Your task to perform on an android device: change text size in settings app Image 0: 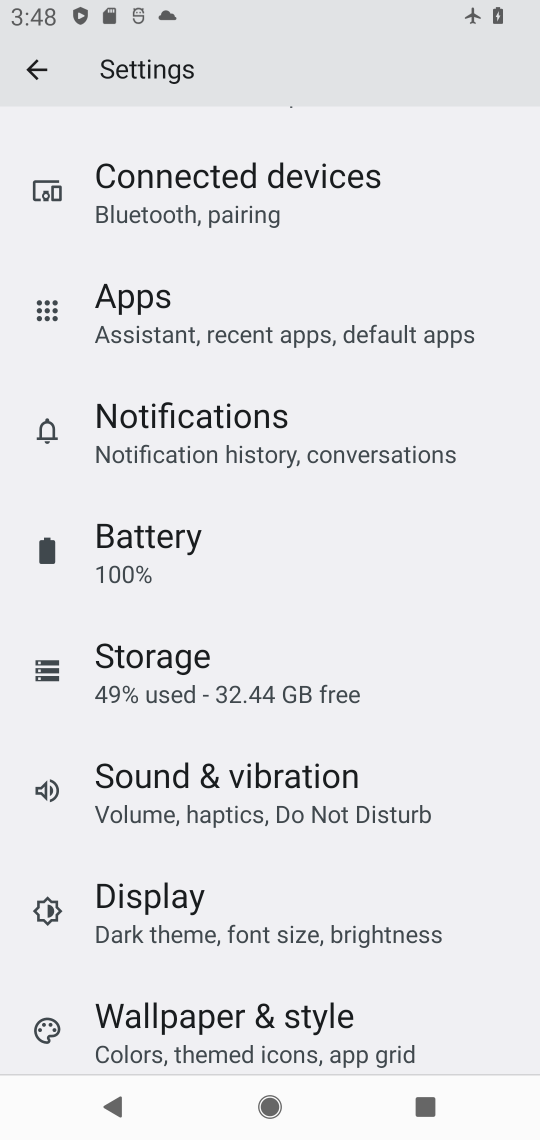
Step 0: drag from (247, 990) to (302, 378)
Your task to perform on an android device: change text size in settings app Image 1: 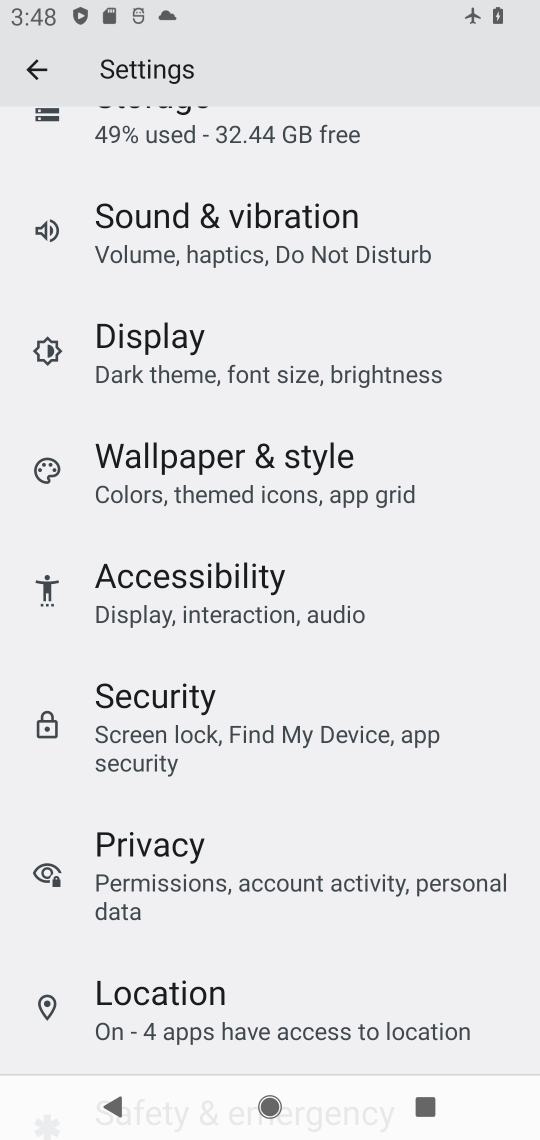
Step 1: drag from (243, 944) to (265, 1120)
Your task to perform on an android device: change text size in settings app Image 2: 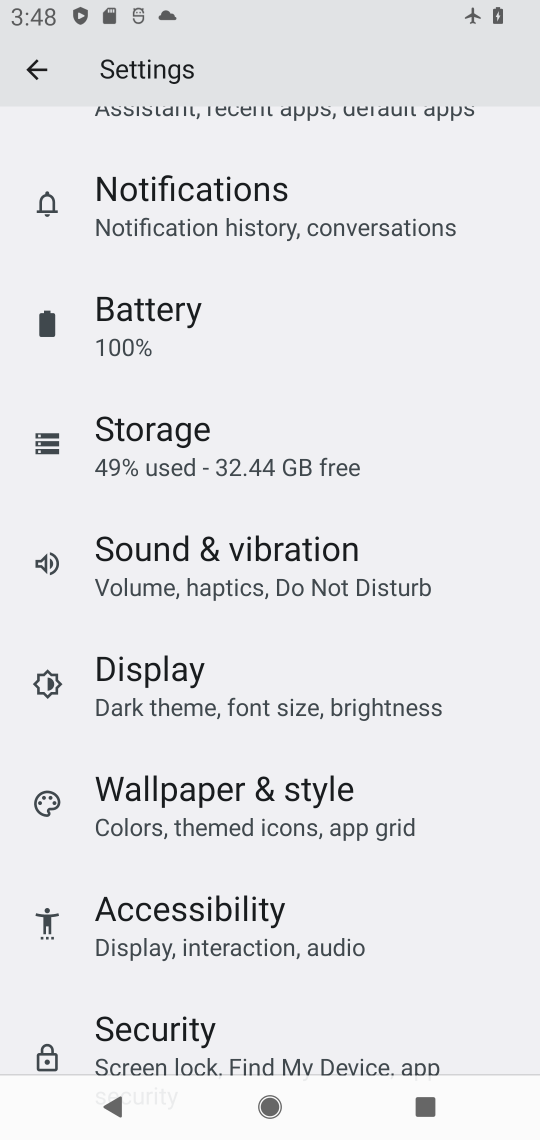
Step 2: drag from (173, 395) to (242, 258)
Your task to perform on an android device: change text size in settings app Image 3: 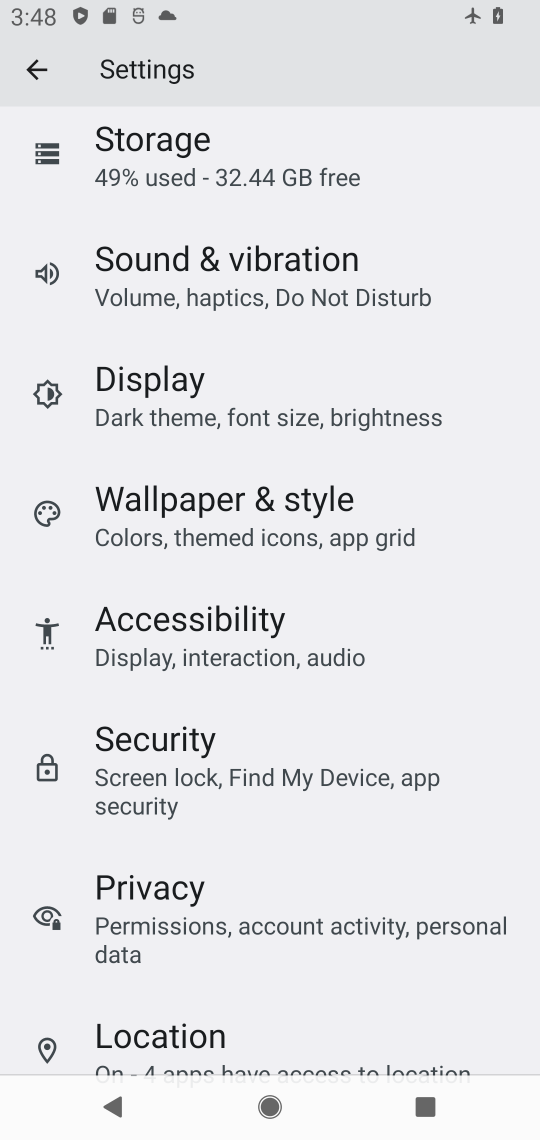
Step 3: drag from (227, 973) to (264, 375)
Your task to perform on an android device: change text size in settings app Image 4: 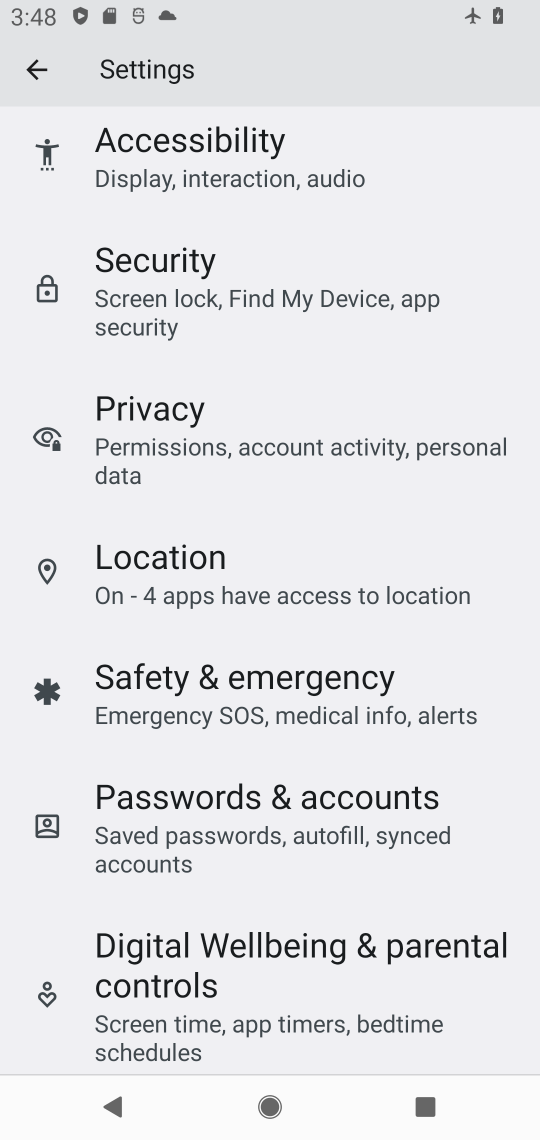
Step 4: drag from (250, 993) to (303, 374)
Your task to perform on an android device: change text size in settings app Image 5: 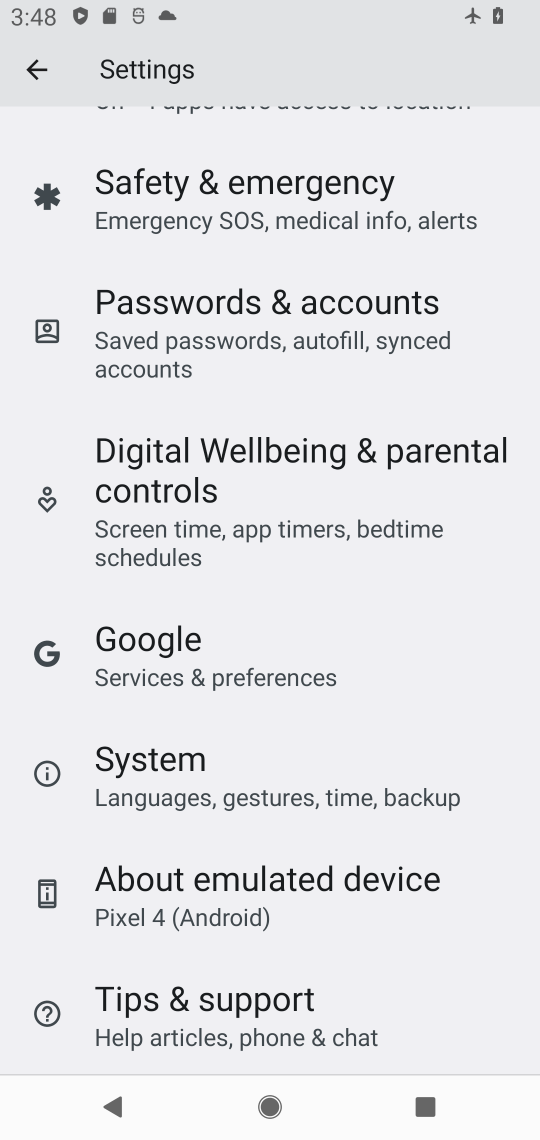
Step 5: drag from (247, 223) to (256, 877)
Your task to perform on an android device: change text size in settings app Image 6: 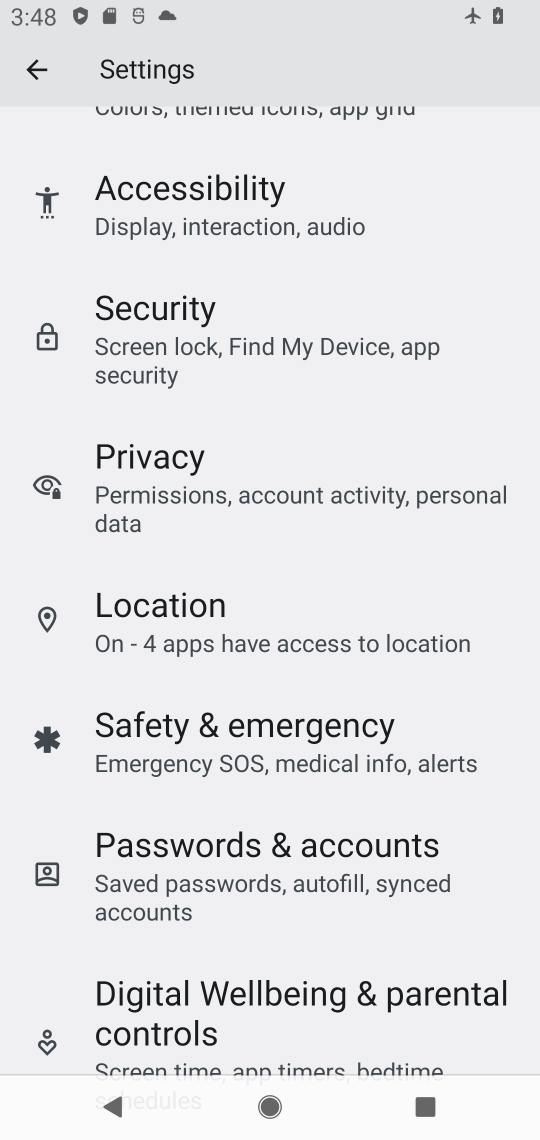
Step 6: click (139, 184)
Your task to perform on an android device: change text size in settings app Image 7: 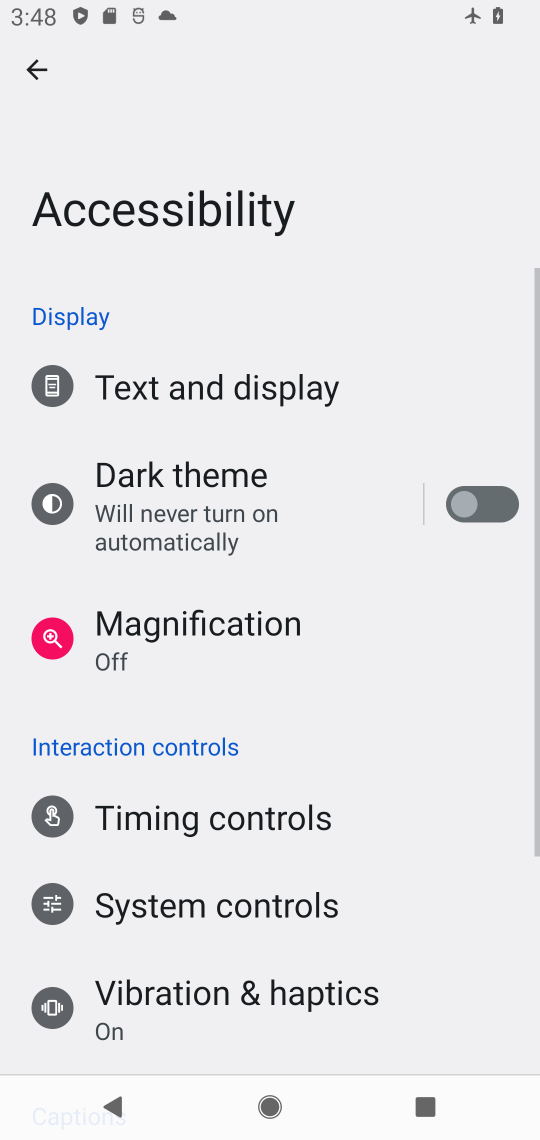
Step 7: click (227, 399)
Your task to perform on an android device: change text size in settings app Image 8: 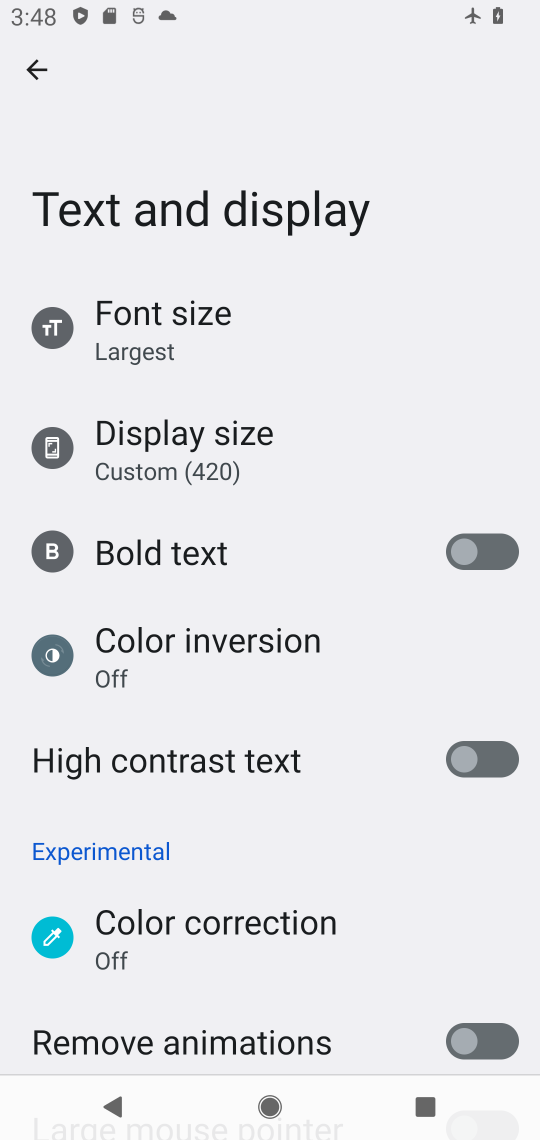
Step 8: click (134, 335)
Your task to perform on an android device: change text size in settings app Image 9: 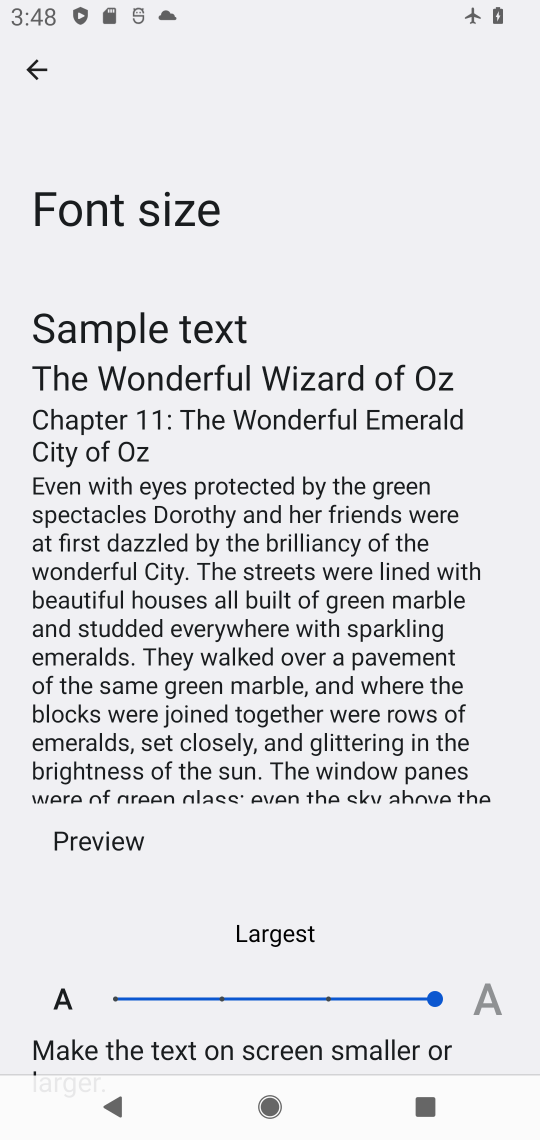
Step 9: click (317, 982)
Your task to perform on an android device: change text size in settings app Image 10: 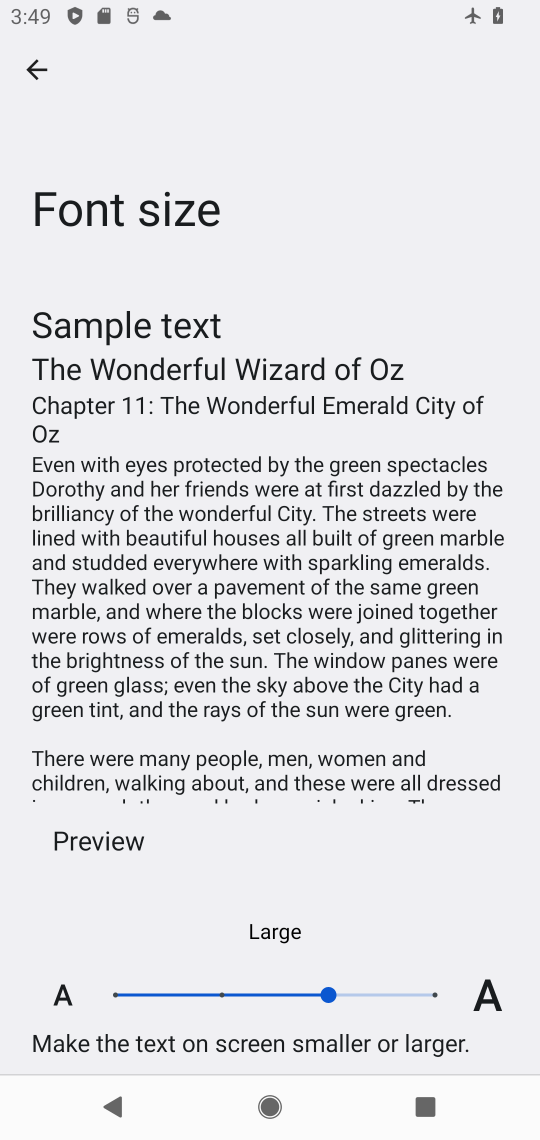
Step 10: task complete